Your task to perform on an android device: find photos in the google photos app Image 0: 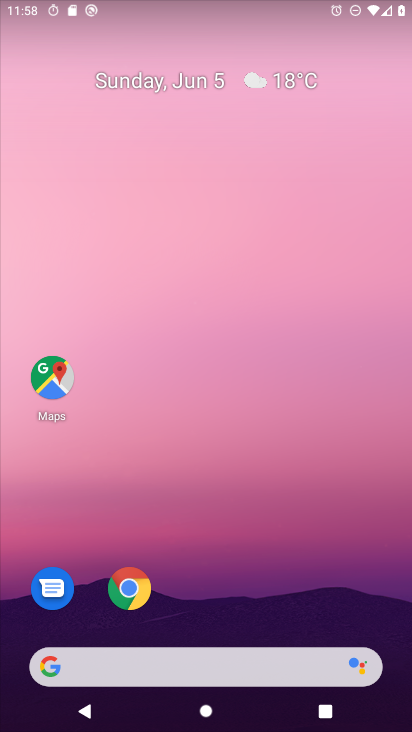
Step 0: drag from (349, 573) to (365, 270)
Your task to perform on an android device: find photos in the google photos app Image 1: 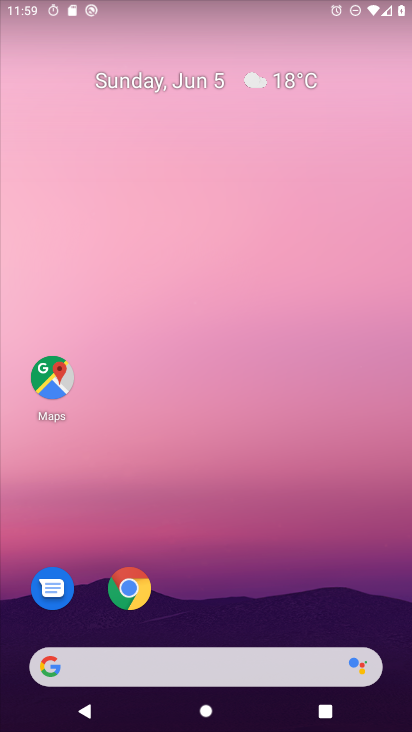
Step 1: drag from (344, 596) to (349, 232)
Your task to perform on an android device: find photos in the google photos app Image 2: 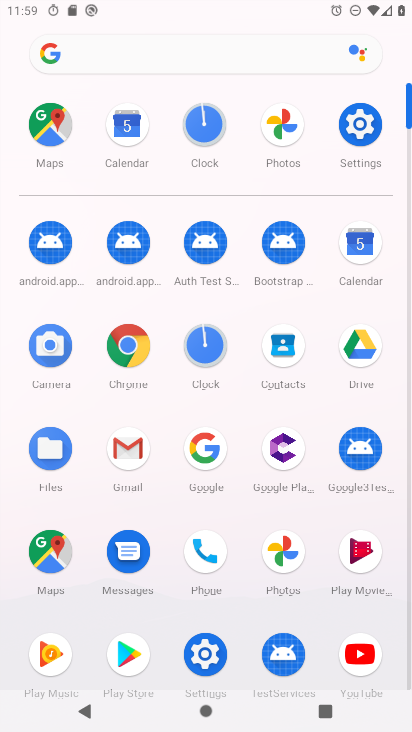
Step 2: click (291, 553)
Your task to perform on an android device: find photos in the google photos app Image 3: 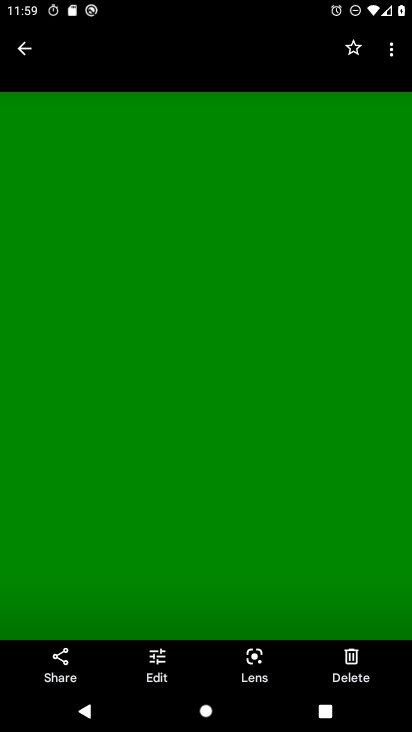
Step 3: task complete